Your task to perform on an android device: set the timer Image 0: 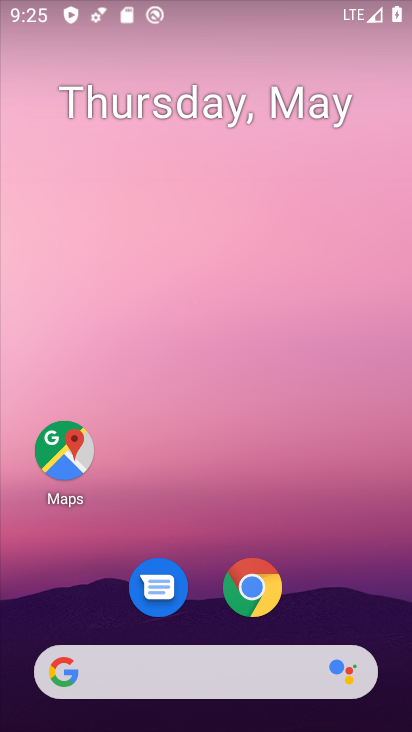
Step 0: drag from (345, 635) to (307, 2)
Your task to perform on an android device: set the timer Image 1: 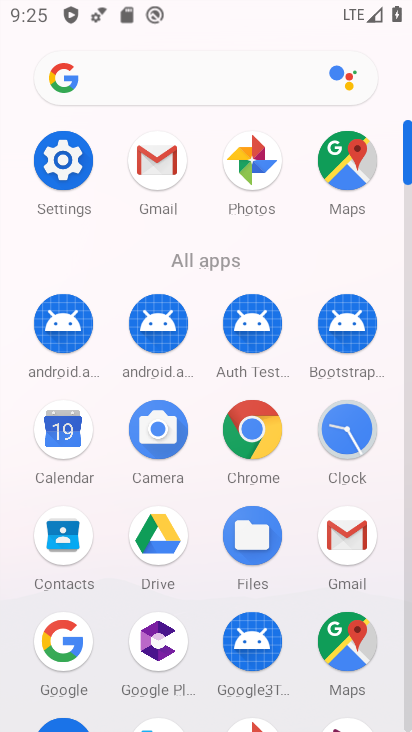
Step 1: click (347, 436)
Your task to perform on an android device: set the timer Image 2: 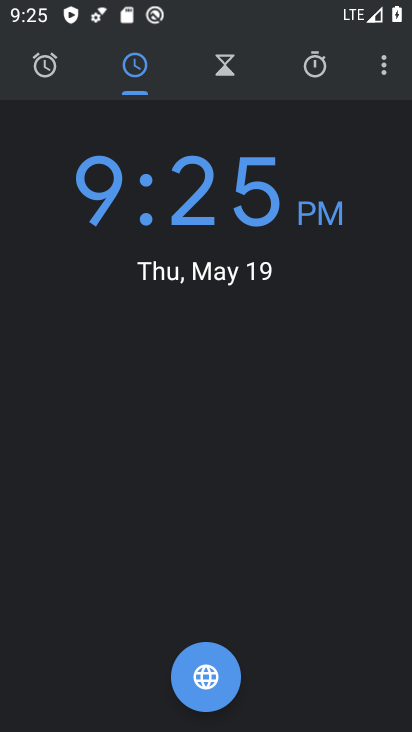
Step 2: click (227, 59)
Your task to perform on an android device: set the timer Image 3: 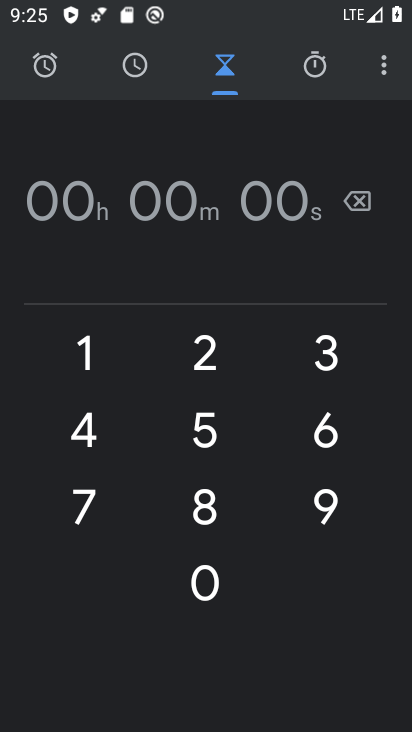
Step 3: click (323, 432)
Your task to perform on an android device: set the timer Image 4: 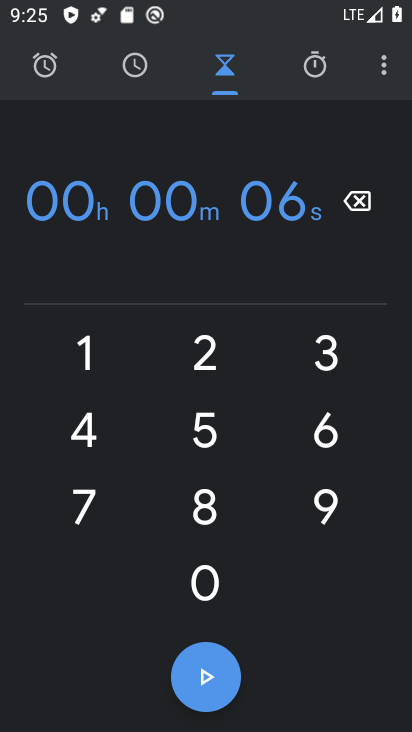
Step 4: click (200, 586)
Your task to perform on an android device: set the timer Image 5: 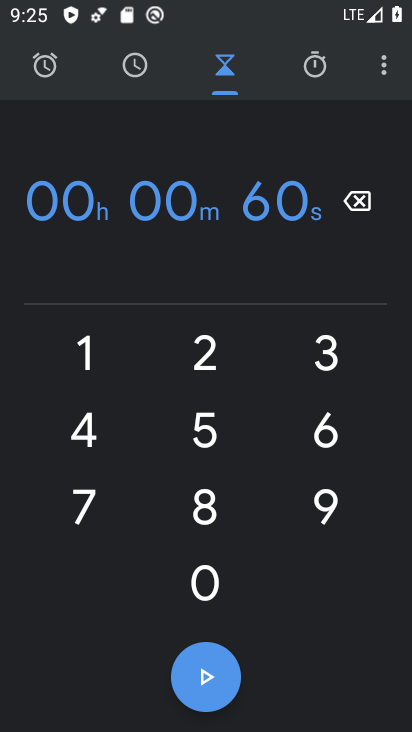
Step 5: click (208, 681)
Your task to perform on an android device: set the timer Image 6: 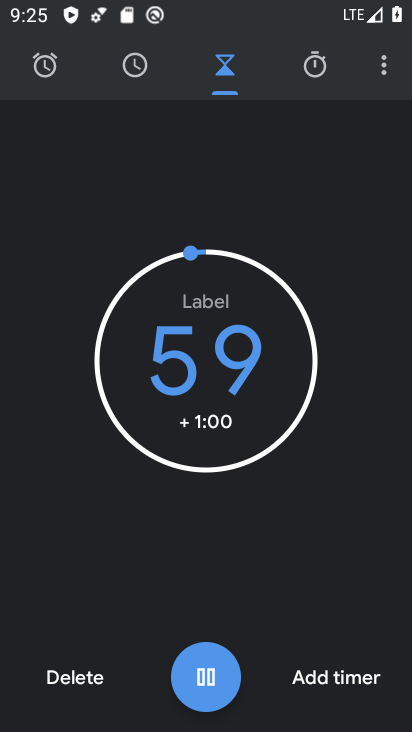
Step 6: task complete